Your task to perform on an android device: Go to sound settings Image 0: 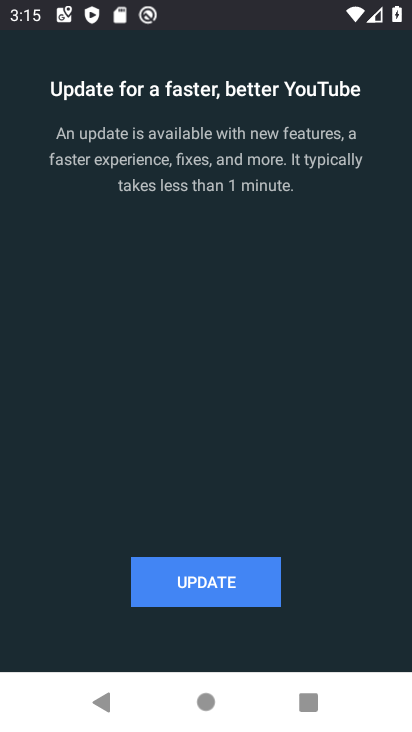
Step 0: press home button
Your task to perform on an android device: Go to sound settings Image 1: 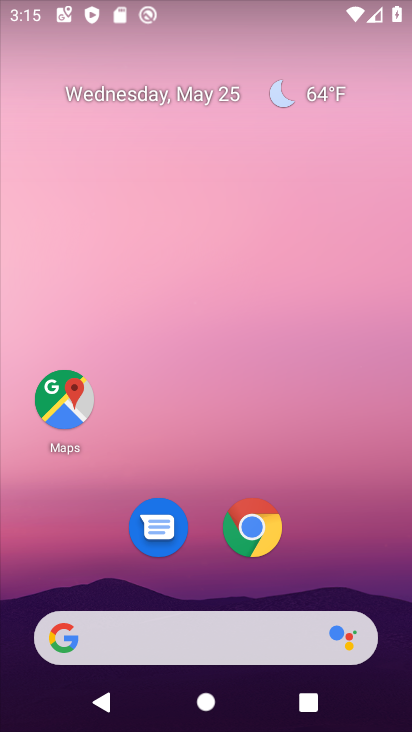
Step 1: drag from (142, 580) to (235, 26)
Your task to perform on an android device: Go to sound settings Image 2: 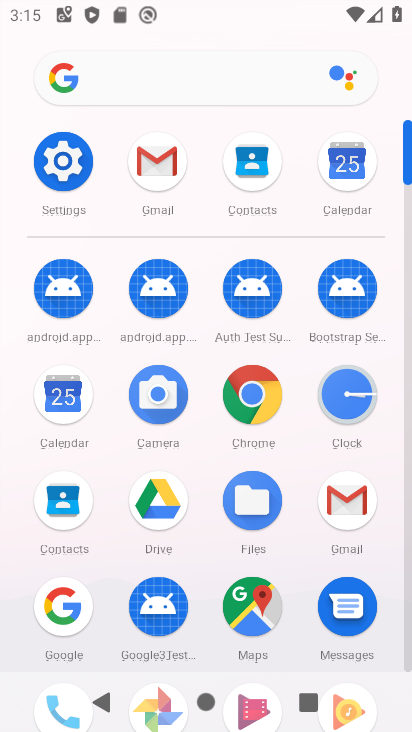
Step 2: click (67, 156)
Your task to perform on an android device: Go to sound settings Image 3: 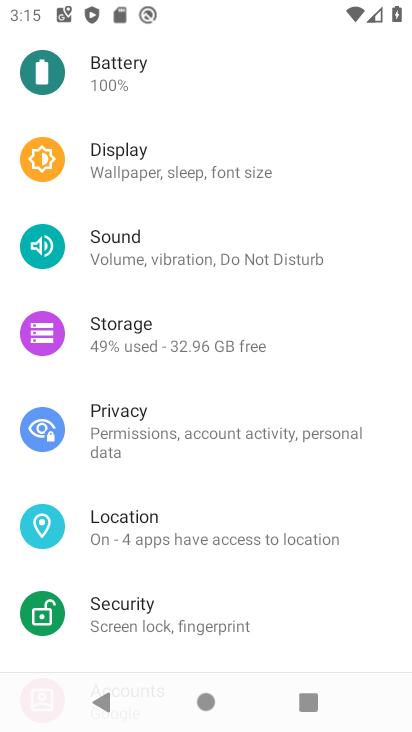
Step 3: click (122, 242)
Your task to perform on an android device: Go to sound settings Image 4: 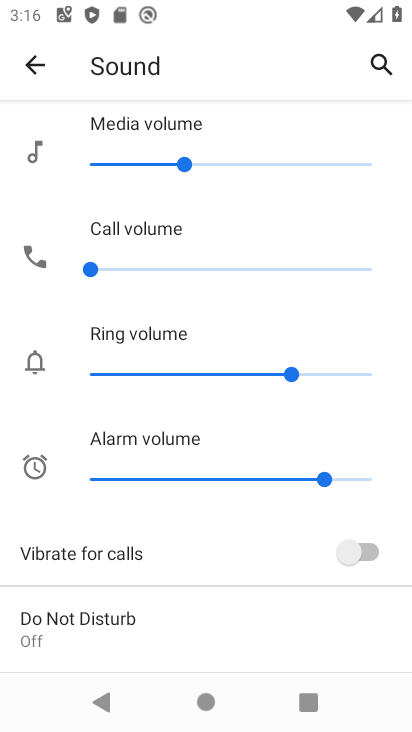
Step 4: task complete